Your task to perform on an android device: Add beats solo 3 to the cart on amazon.com Image 0: 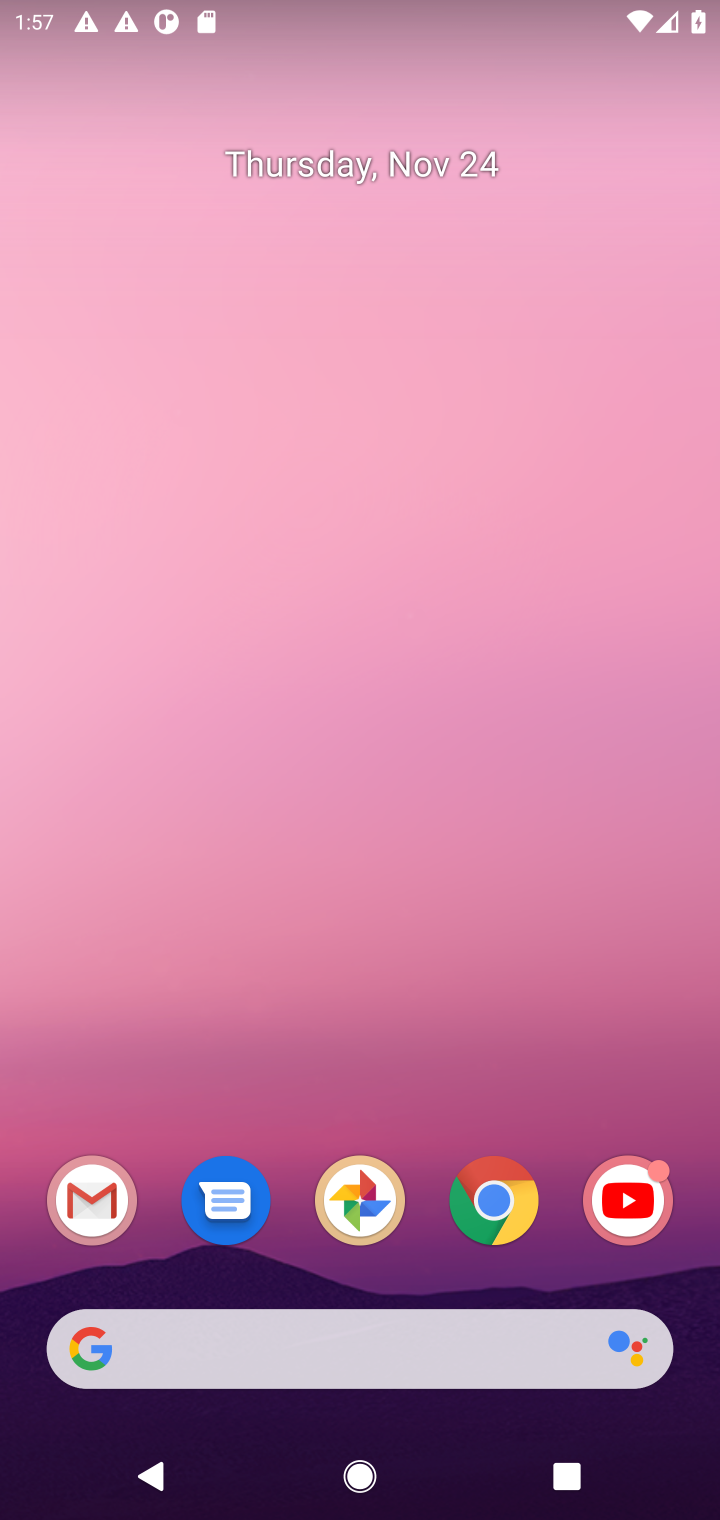
Step 0: click (531, 1360)
Your task to perform on an android device: Add beats solo 3 to the cart on amazon.com Image 1: 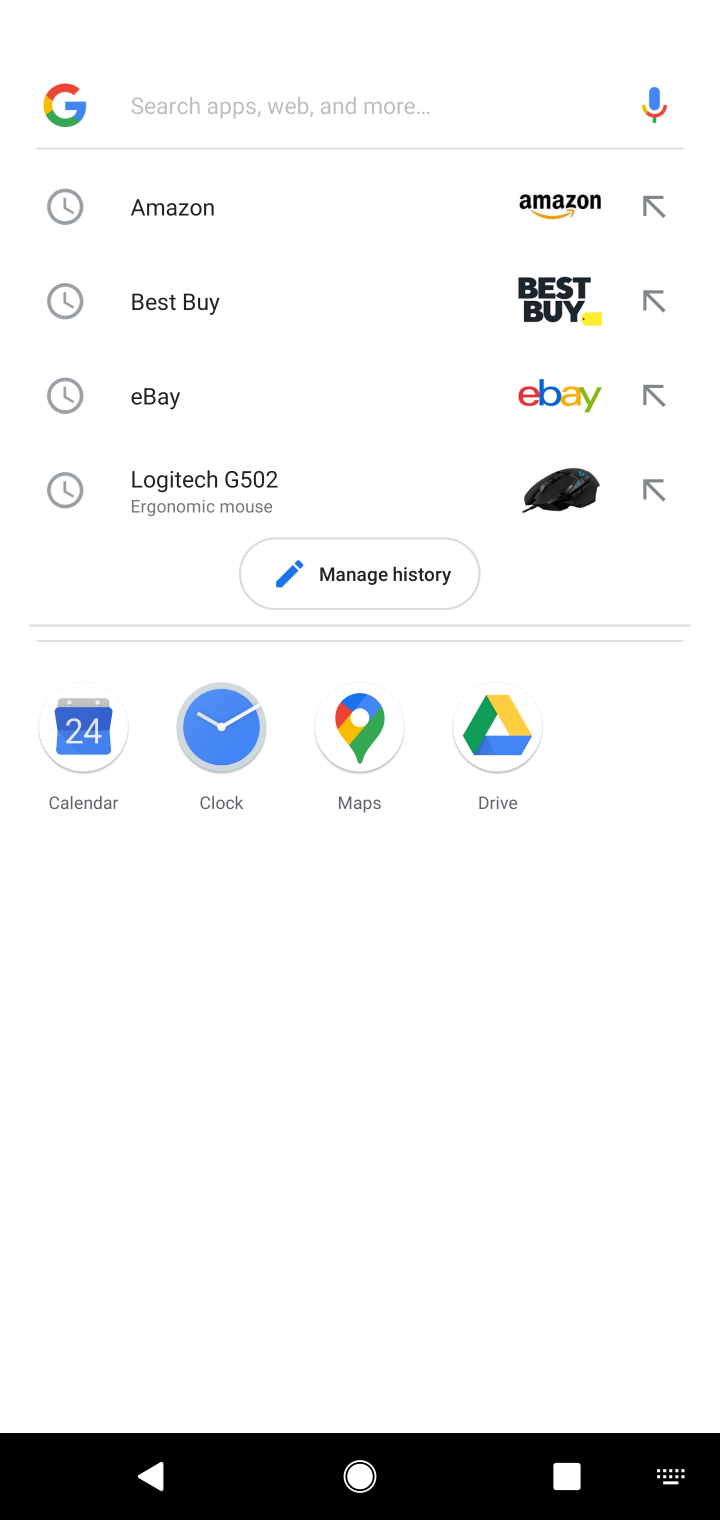
Step 1: type "amazon"
Your task to perform on an android device: Add beats solo 3 to the cart on amazon.com Image 2: 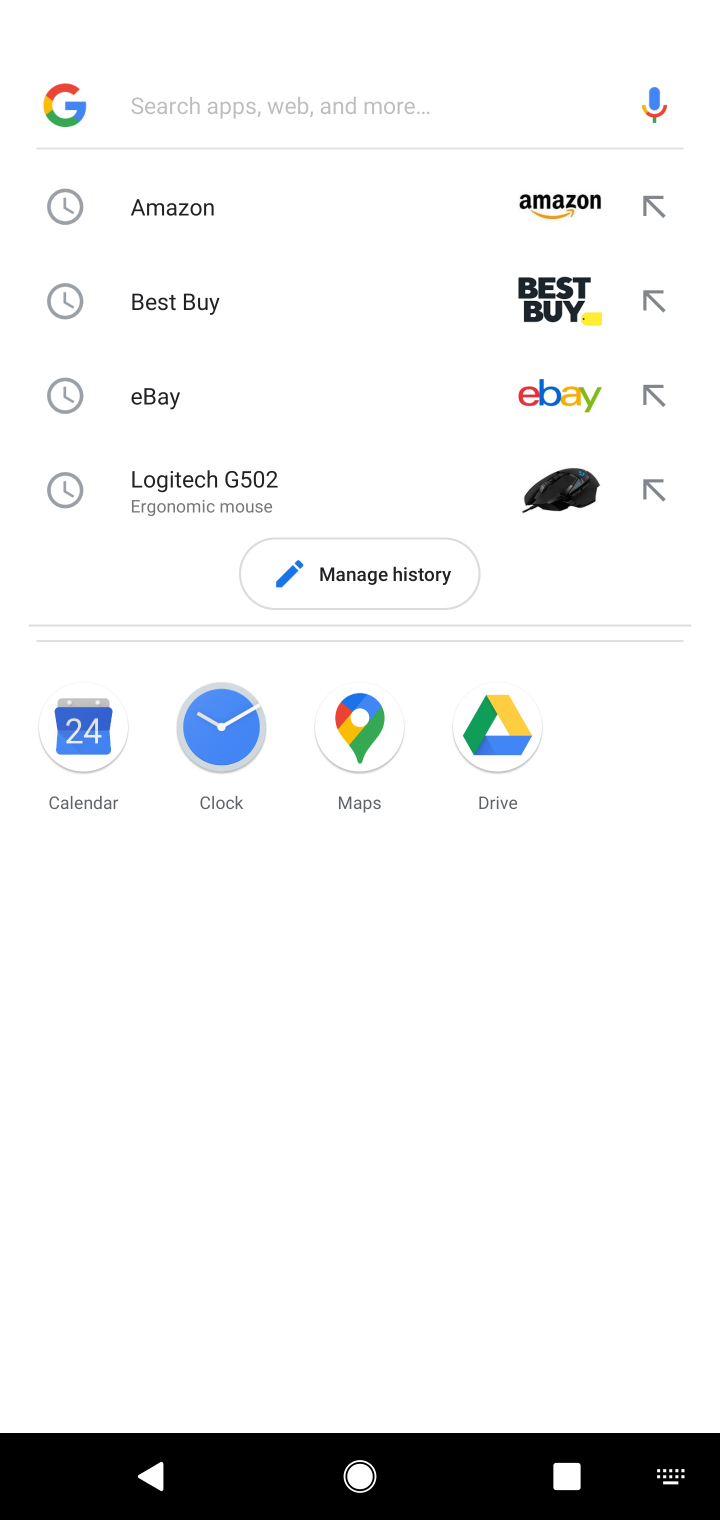
Step 2: click (270, 178)
Your task to perform on an android device: Add beats solo 3 to the cart on amazon.com Image 3: 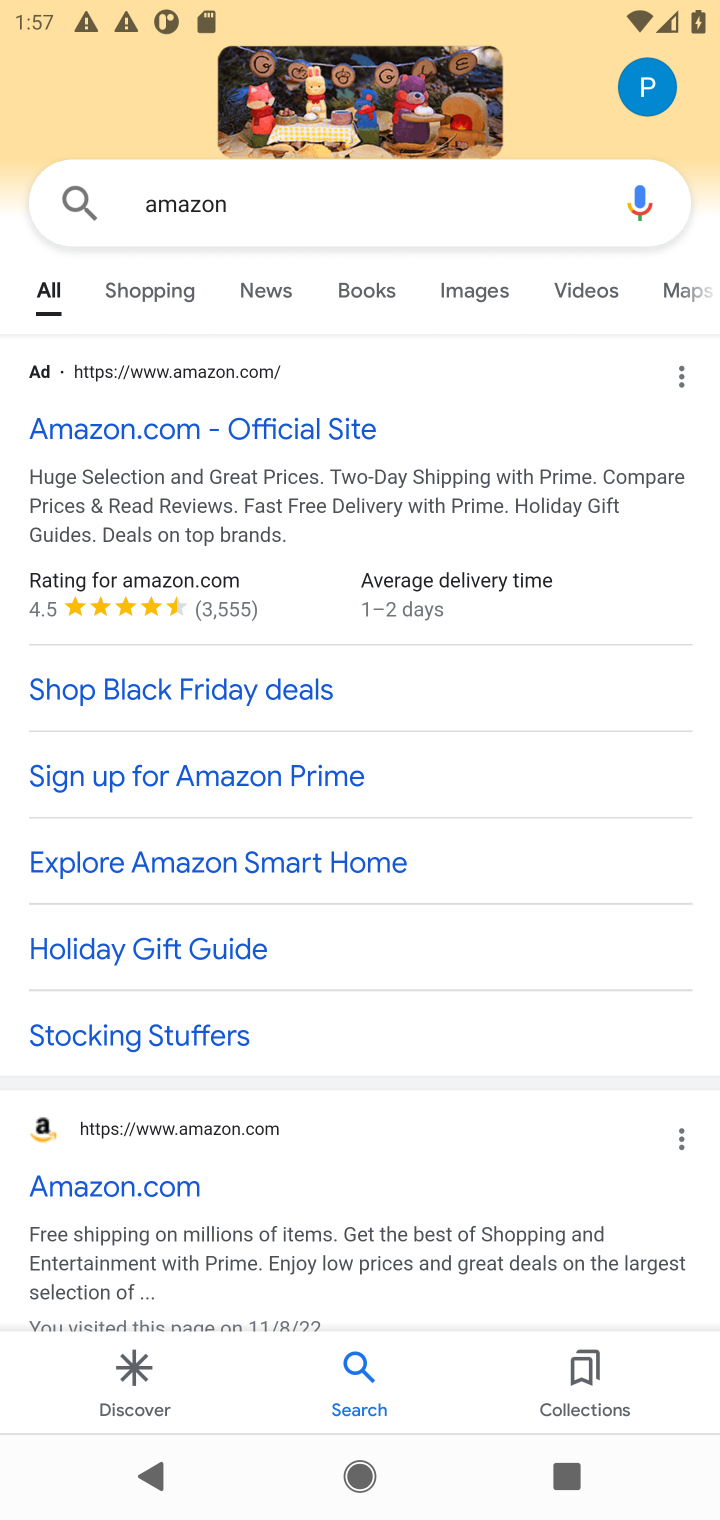
Step 3: click (285, 422)
Your task to perform on an android device: Add beats solo 3 to the cart on amazon.com Image 4: 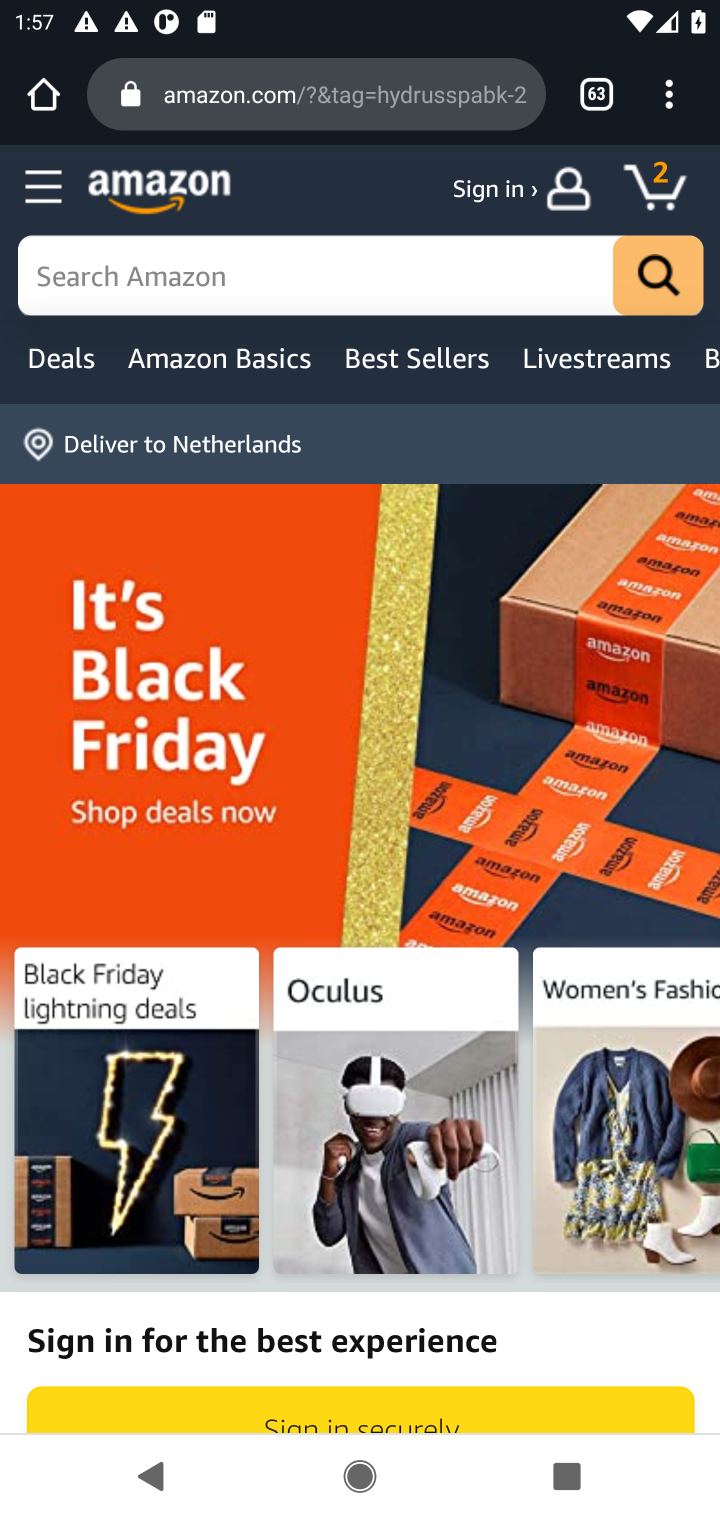
Step 4: click (463, 278)
Your task to perform on an android device: Add beats solo 3 to the cart on amazon.com Image 5: 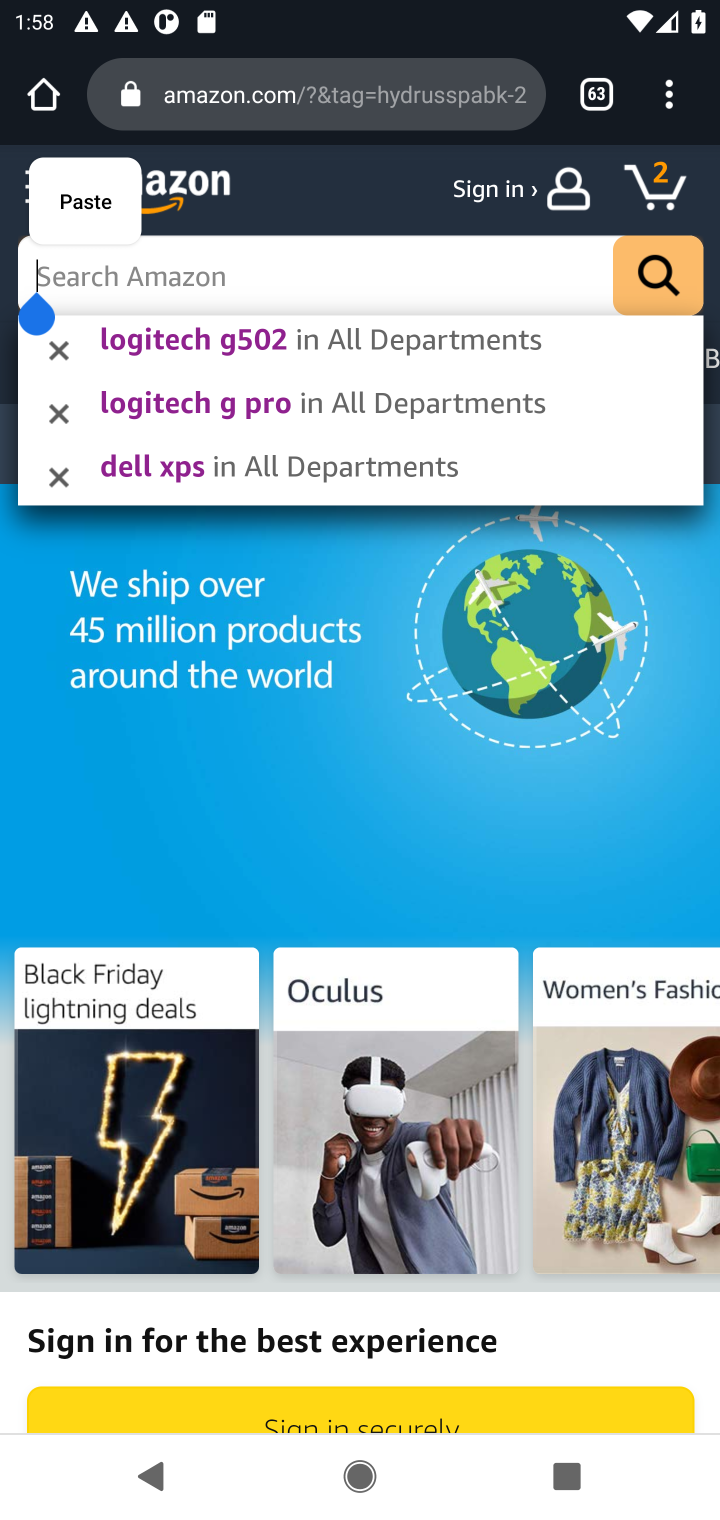
Step 5: type "beats solo 3"
Your task to perform on an android device: Add beats solo 3 to the cart on amazon.com Image 6: 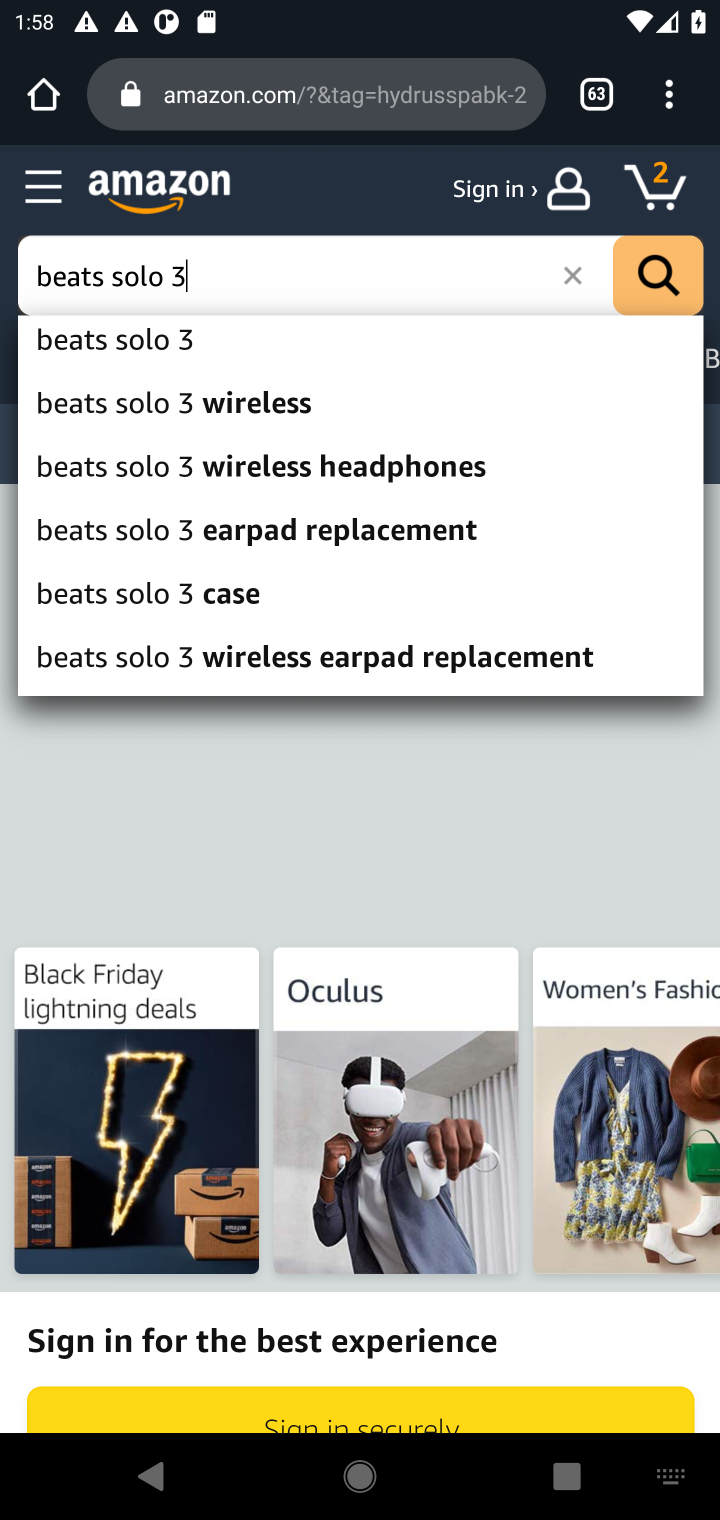
Step 6: click (106, 332)
Your task to perform on an android device: Add beats solo 3 to the cart on amazon.com Image 7: 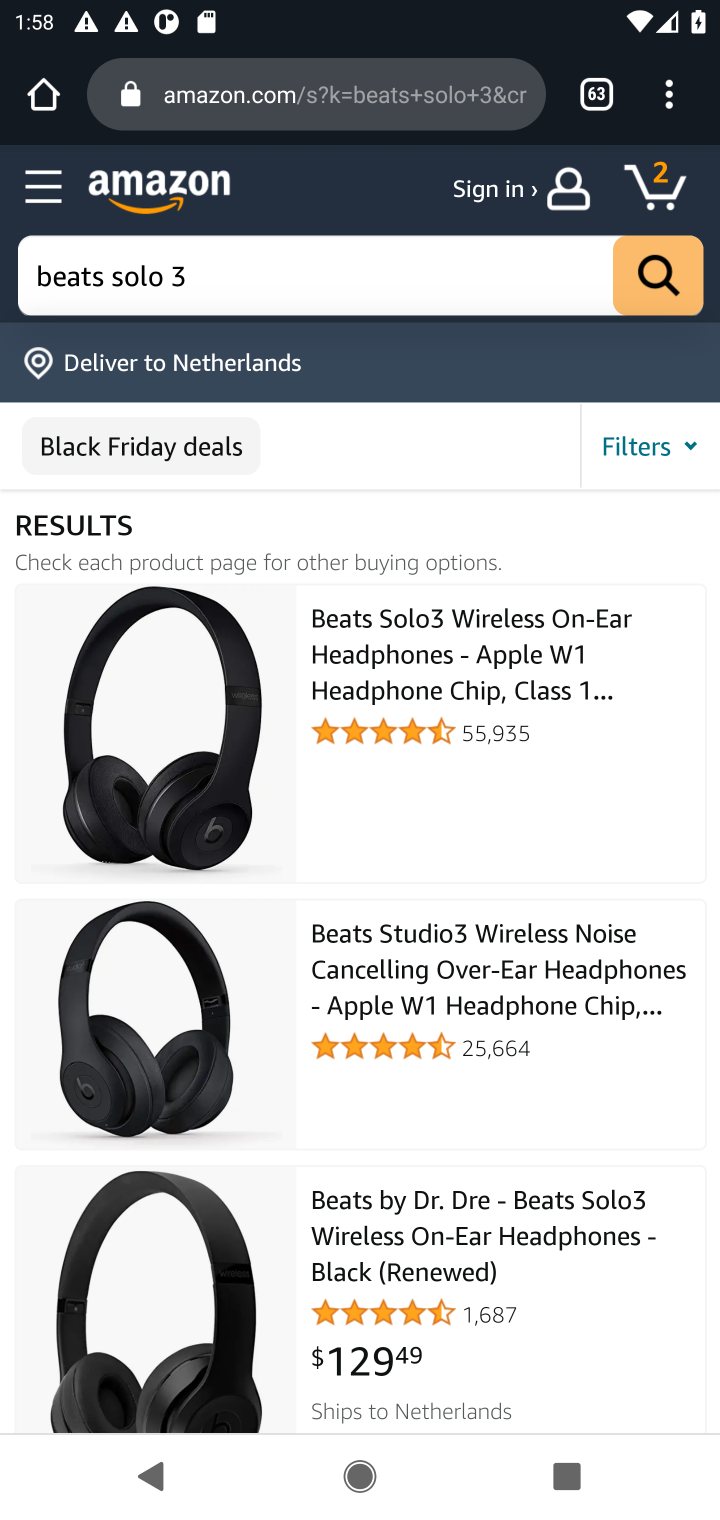
Step 7: click (428, 588)
Your task to perform on an android device: Add beats solo 3 to the cart on amazon.com Image 8: 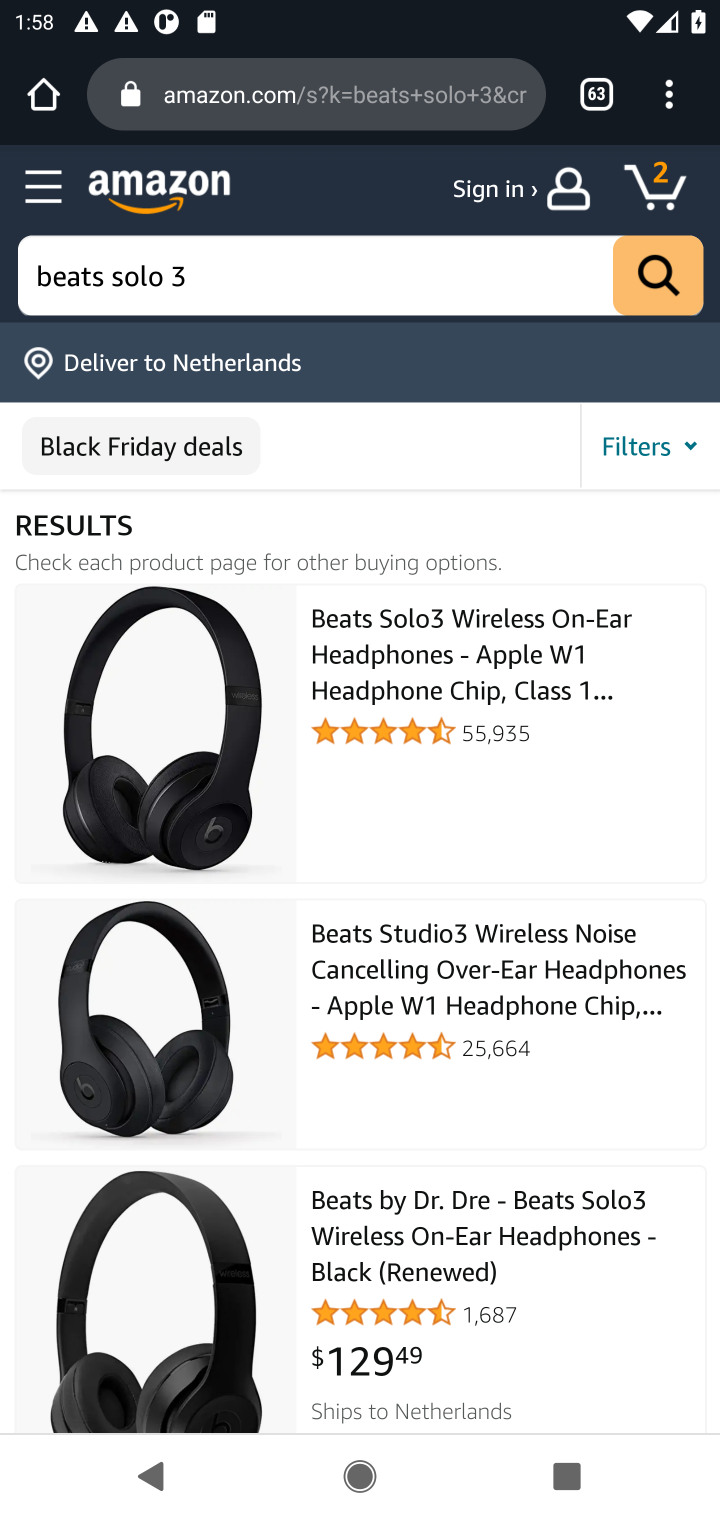
Step 8: click (428, 588)
Your task to perform on an android device: Add beats solo 3 to the cart on amazon.com Image 9: 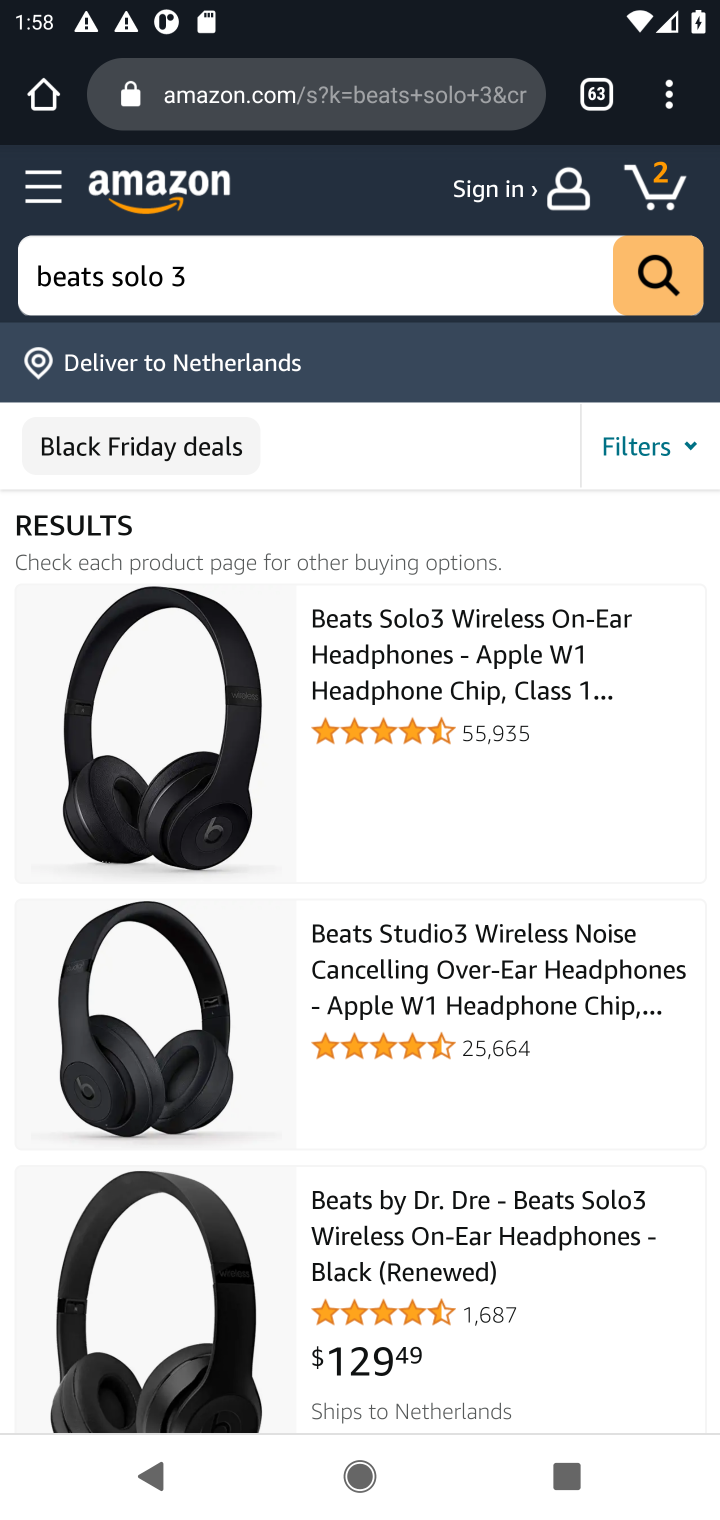
Step 9: click (450, 673)
Your task to perform on an android device: Add beats solo 3 to the cart on amazon.com Image 10: 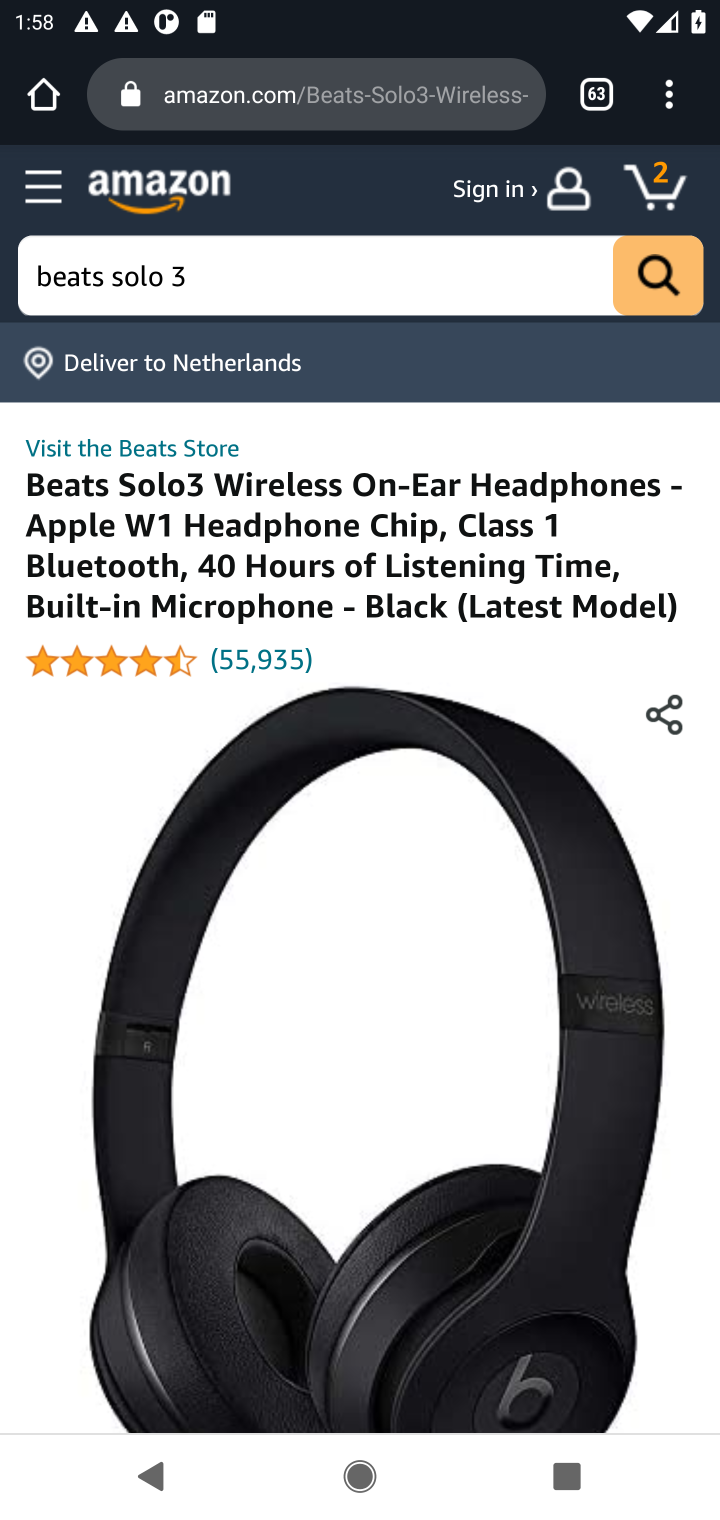
Step 10: drag from (450, 673) to (474, 173)
Your task to perform on an android device: Add beats solo 3 to the cart on amazon.com Image 11: 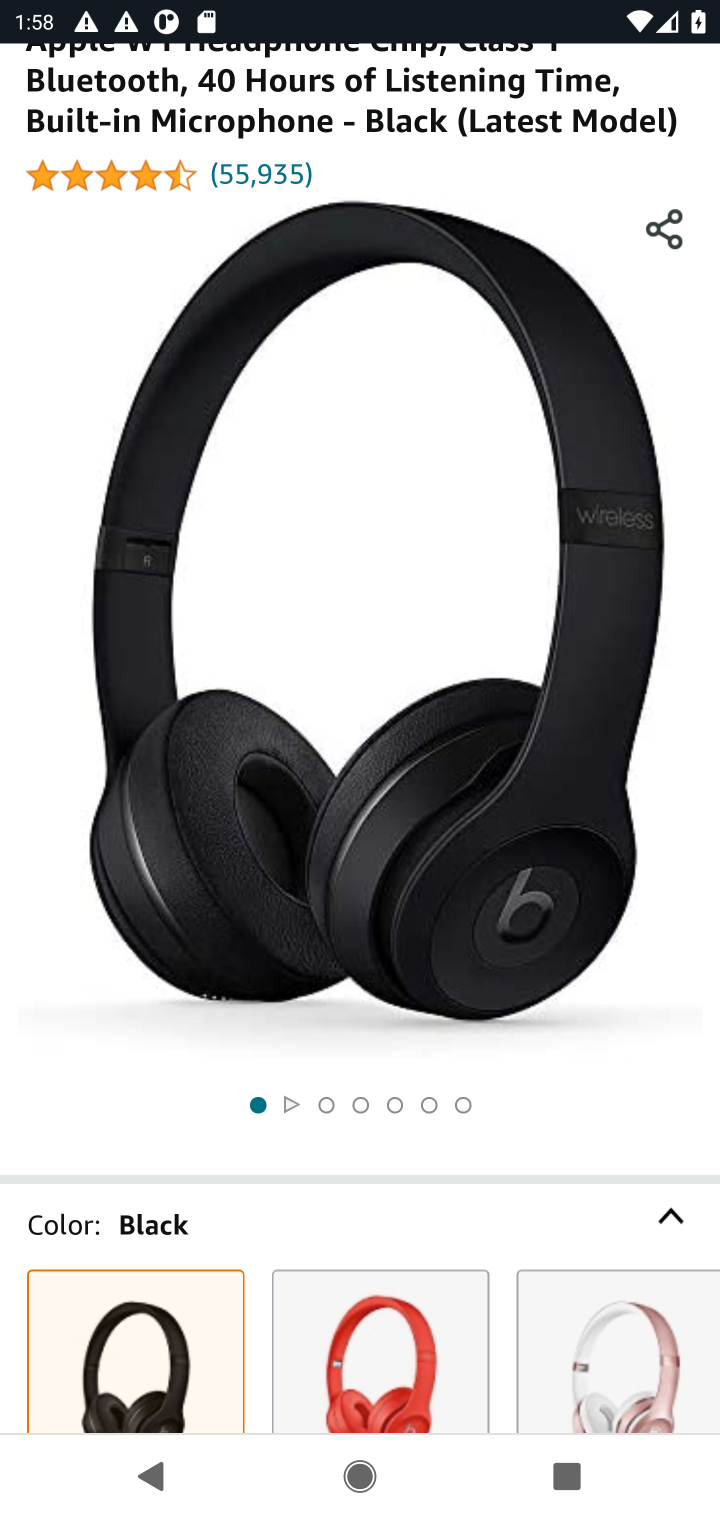
Step 11: drag from (425, 1217) to (307, 498)
Your task to perform on an android device: Add beats solo 3 to the cart on amazon.com Image 12: 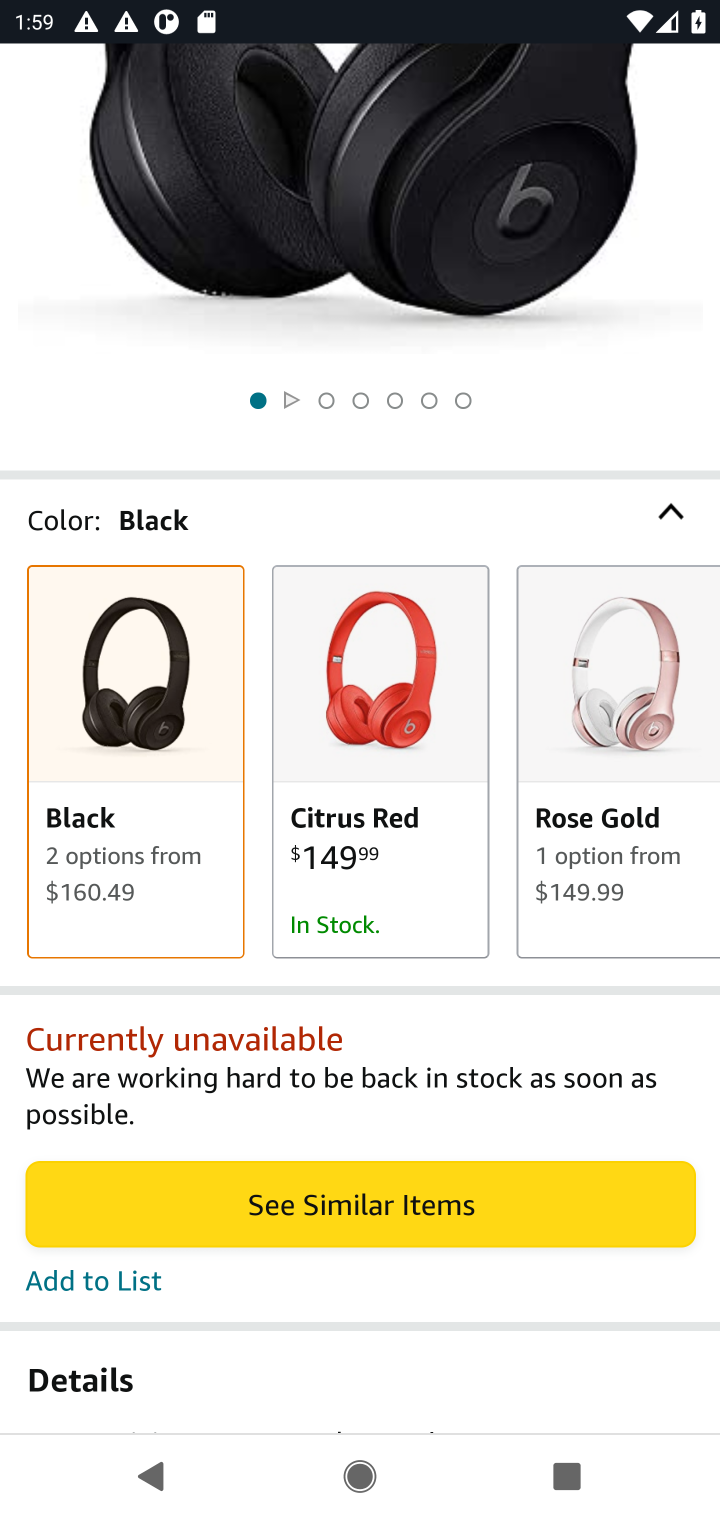
Step 12: click (348, 1210)
Your task to perform on an android device: Add beats solo 3 to the cart on amazon.com Image 13: 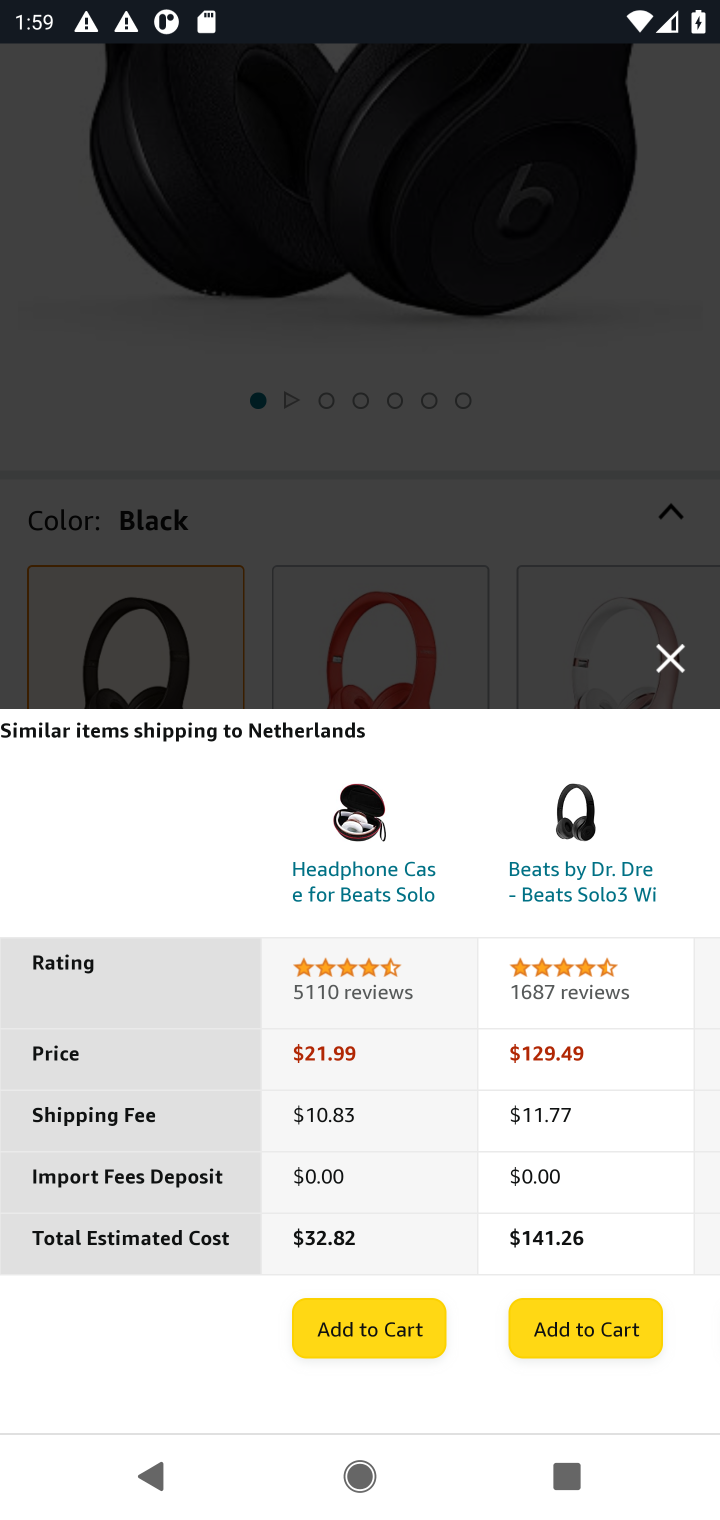
Step 13: task complete